Your task to perform on an android device: Go to Amazon Image 0: 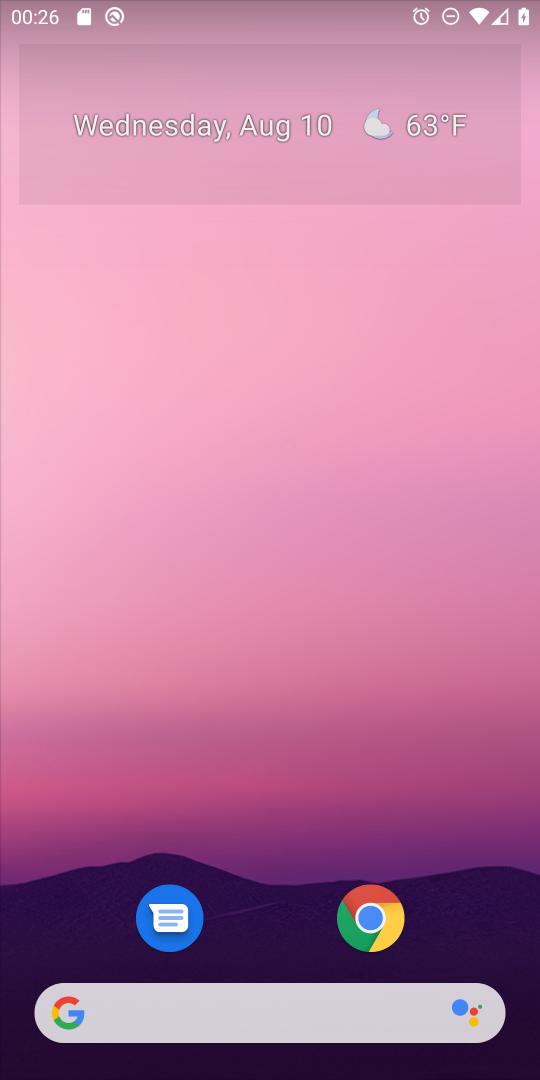
Step 0: drag from (257, 686) to (333, 162)
Your task to perform on an android device: Go to Amazon Image 1: 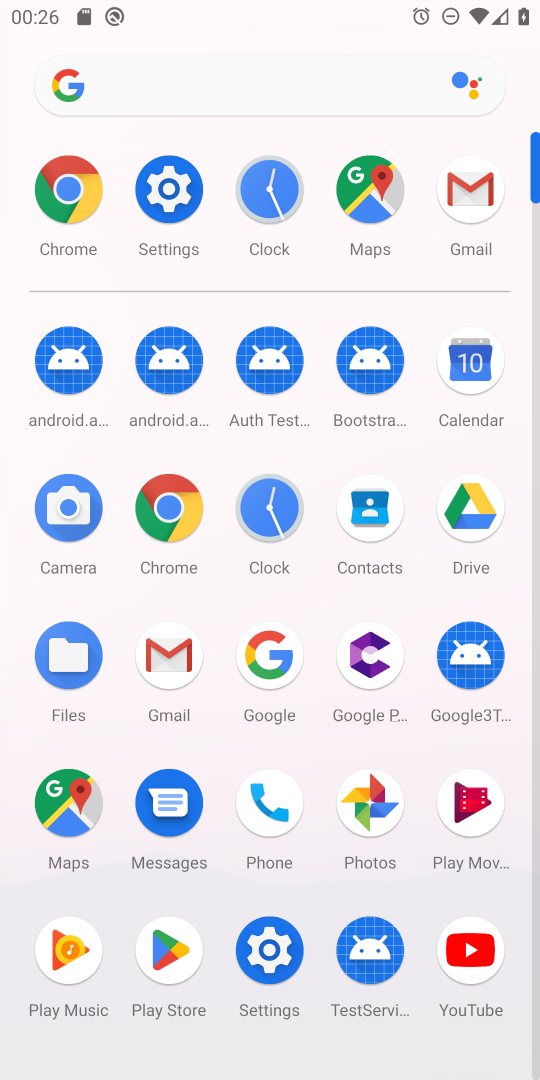
Step 1: click (174, 516)
Your task to perform on an android device: Go to Amazon Image 2: 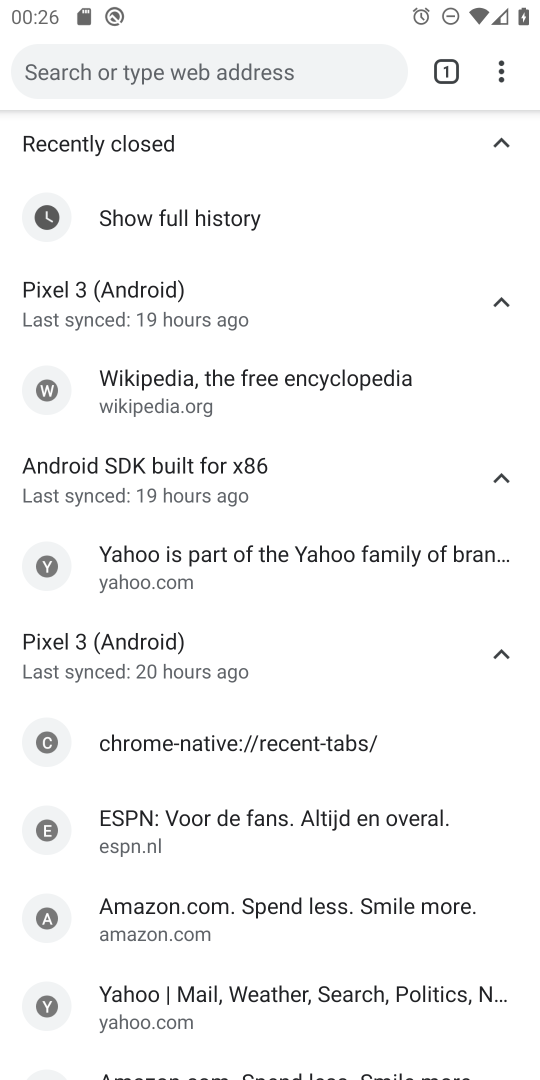
Step 2: click (198, 72)
Your task to perform on an android device: Go to Amazon Image 3: 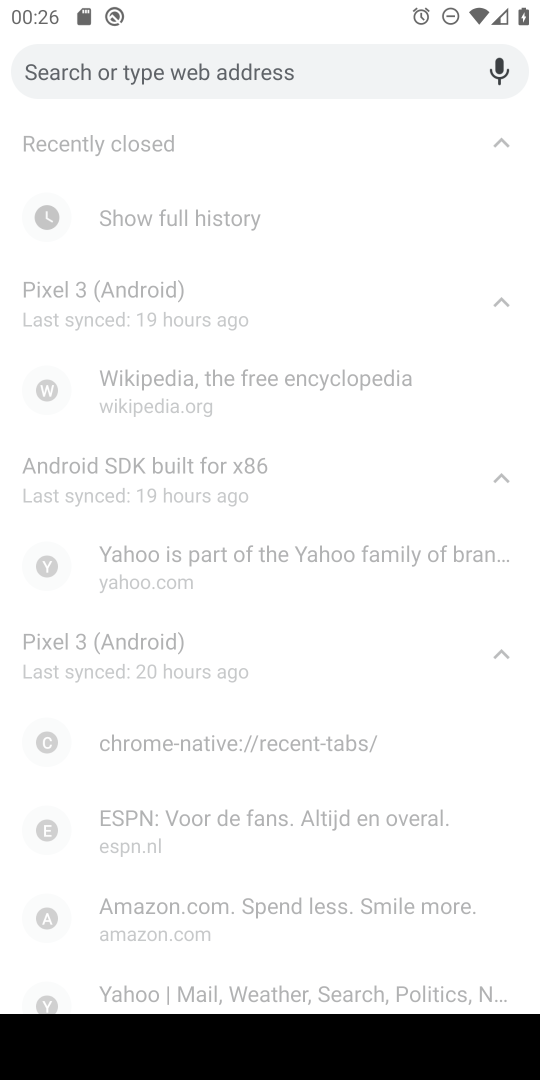
Step 3: type "amazon"
Your task to perform on an android device: Go to Amazon Image 4: 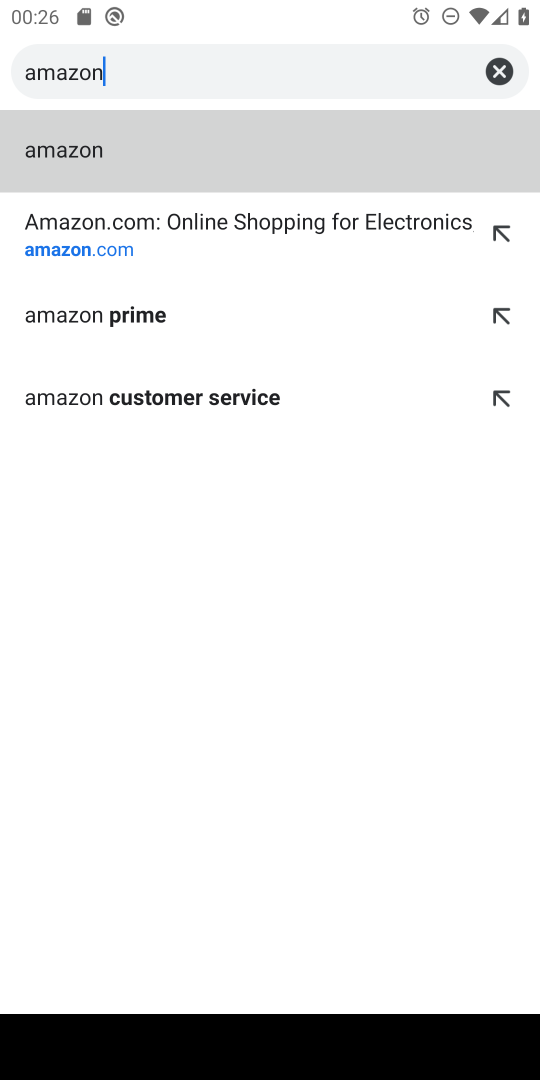
Step 4: click (62, 142)
Your task to perform on an android device: Go to Amazon Image 5: 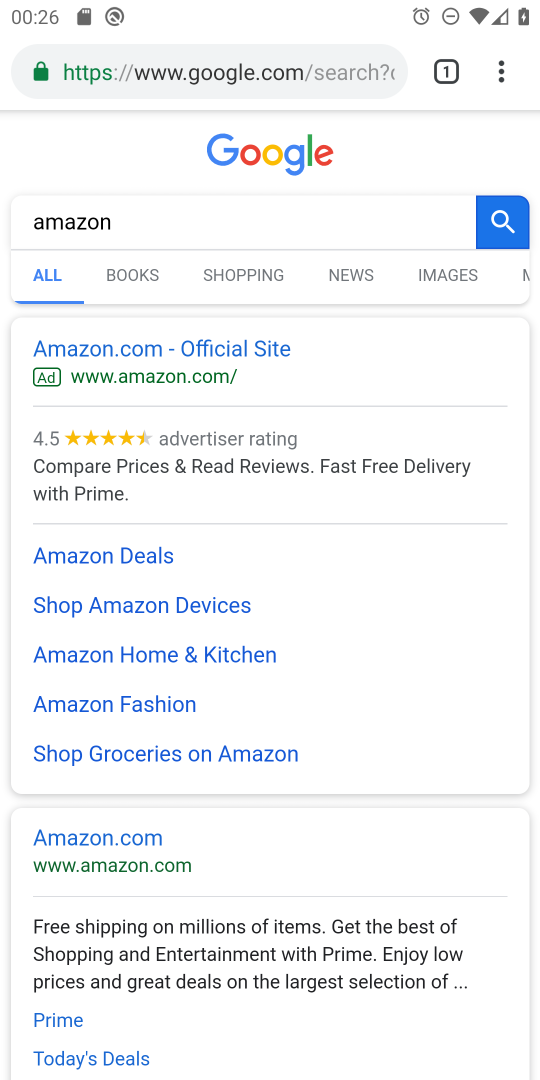
Step 5: click (62, 832)
Your task to perform on an android device: Go to Amazon Image 6: 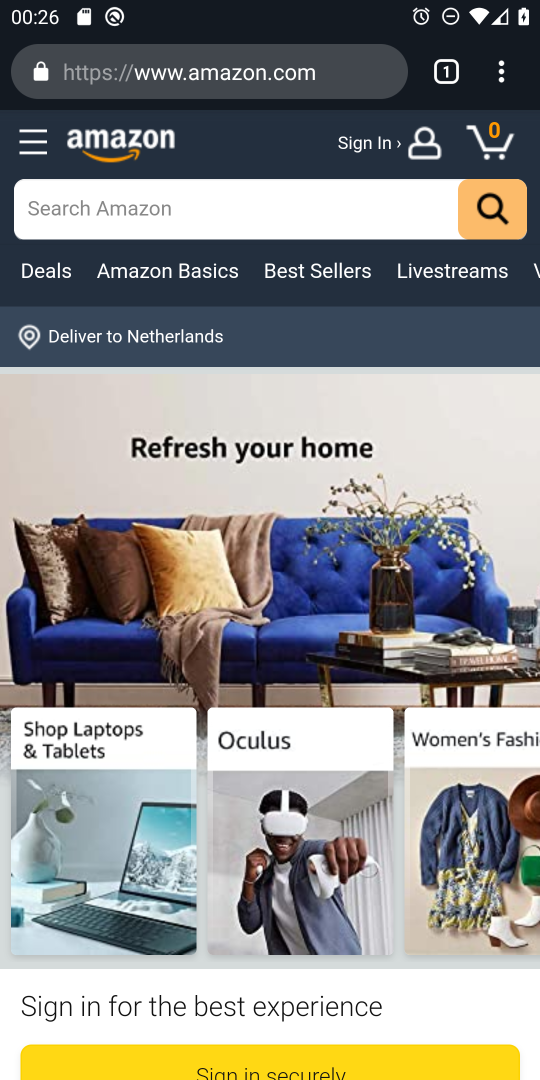
Step 6: task complete